Your task to perform on an android device: turn notification dots on Image 0: 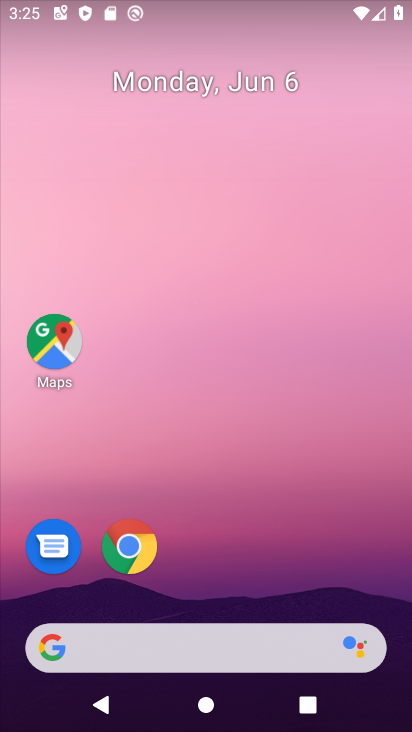
Step 0: drag from (276, 605) to (281, 228)
Your task to perform on an android device: turn notification dots on Image 1: 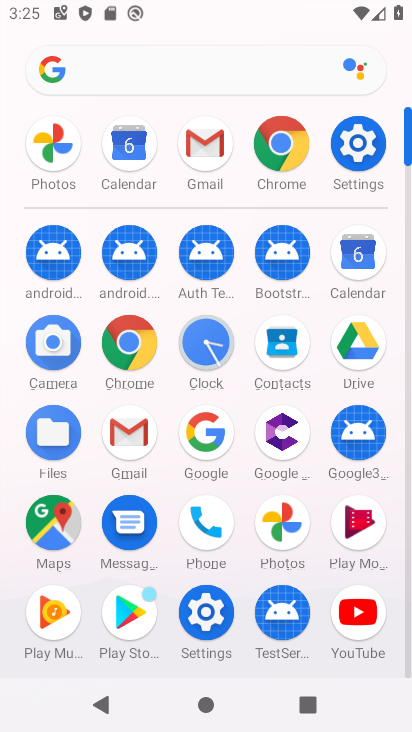
Step 1: click (354, 171)
Your task to perform on an android device: turn notification dots on Image 2: 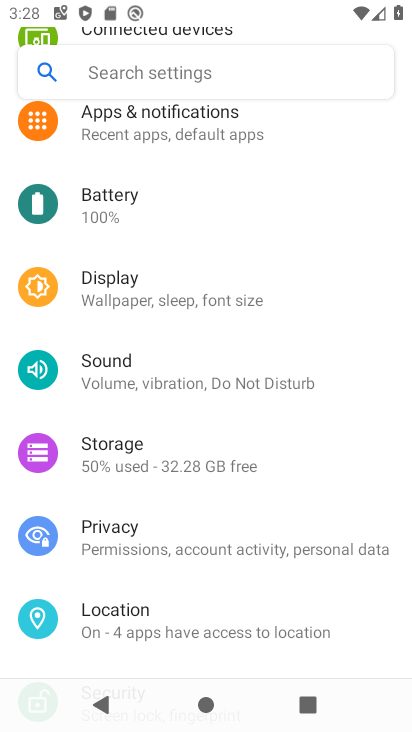
Step 2: click (156, 127)
Your task to perform on an android device: turn notification dots on Image 3: 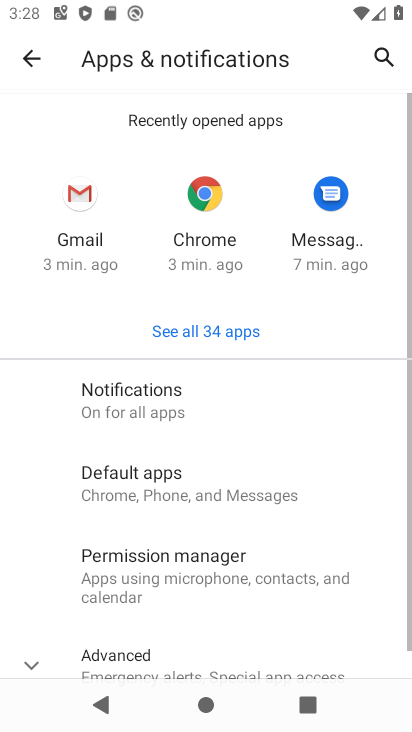
Step 3: task complete